Your task to perform on an android device: open a bookmark in the chrome app Image 0: 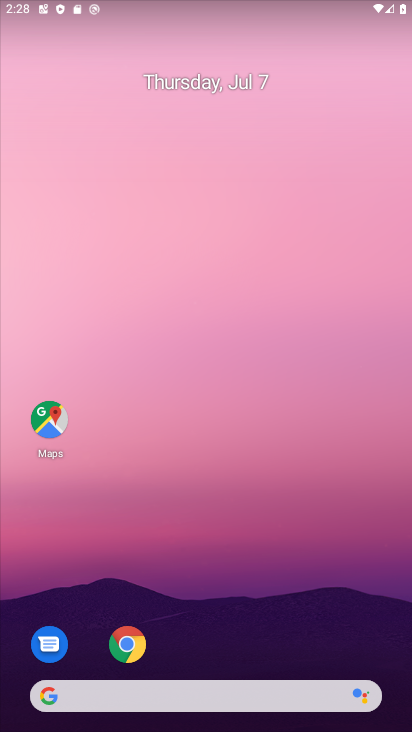
Step 0: press home button
Your task to perform on an android device: open a bookmark in the chrome app Image 1: 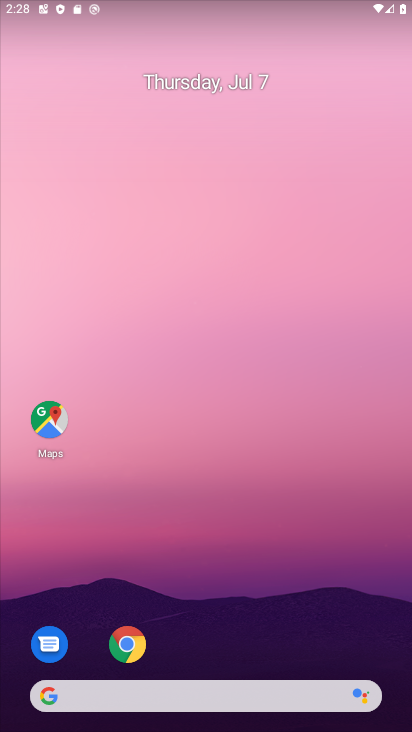
Step 1: drag from (341, 633) to (281, 159)
Your task to perform on an android device: open a bookmark in the chrome app Image 2: 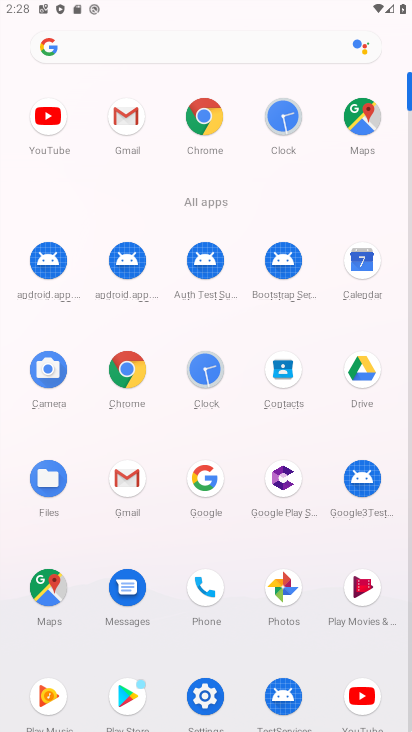
Step 2: click (207, 108)
Your task to perform on an android device: open a bookmark in the chrome app Image 3: 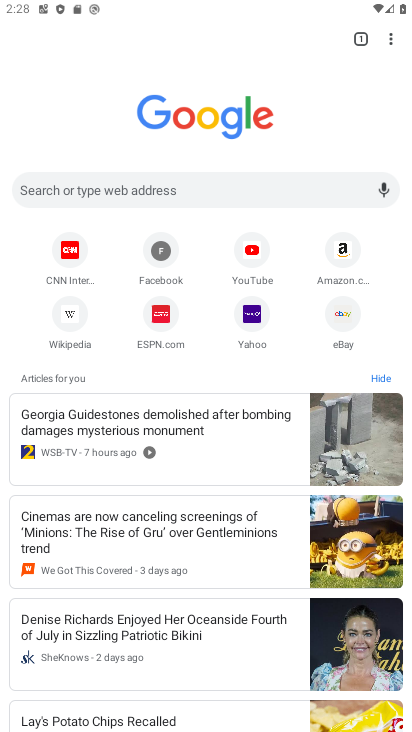
Step 3: drag from (392, 40) to (276, 147)
Your task to perform on an android device: open a bookmark in the chrome app Image 4: 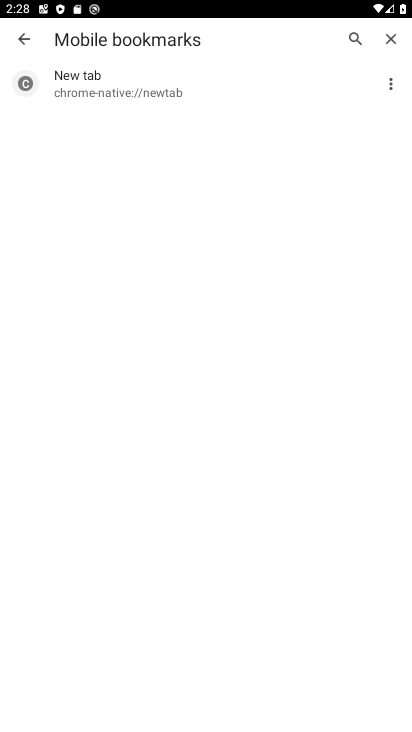
Step 4: click (90, 77)
Your task to perform on an android device: open a bookmark in the chrome app Image 5: 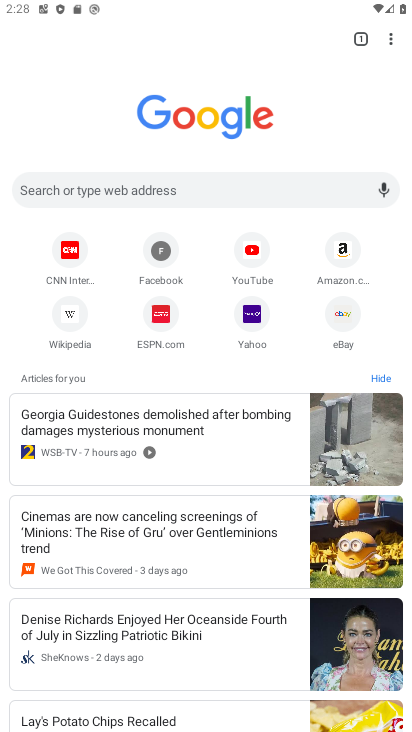
Step 5: task complete